Your task to perform on an android device: Go to network settings Image 0: 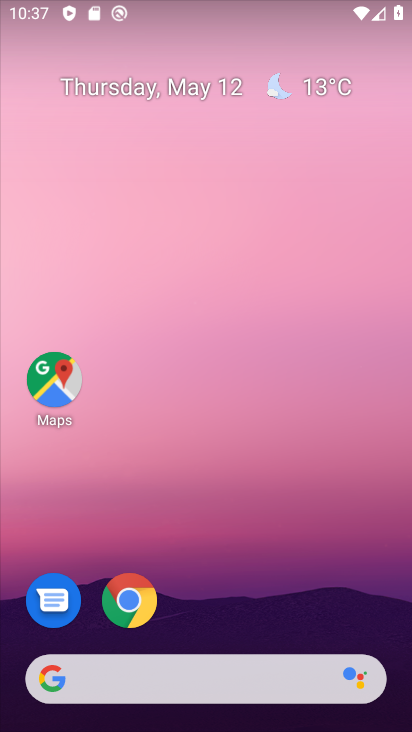
Step 0: drag from (398, 656) to (286, 216)
Your task to perform on an android device: Go to network settings Image 1: 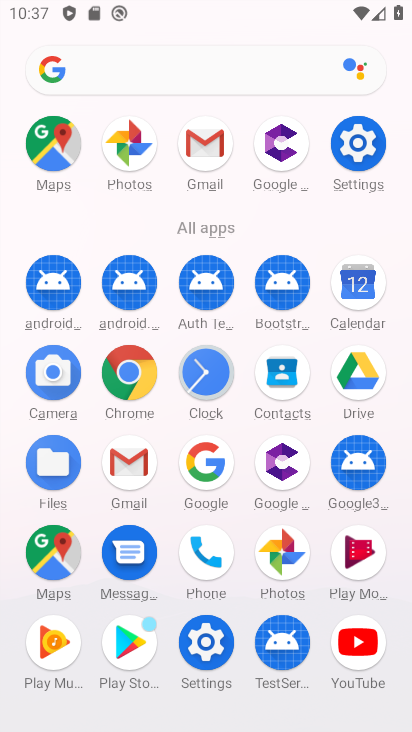
Step 1: click (210, 642)
Your task to perform on an android device: Go to network settings Image 2: 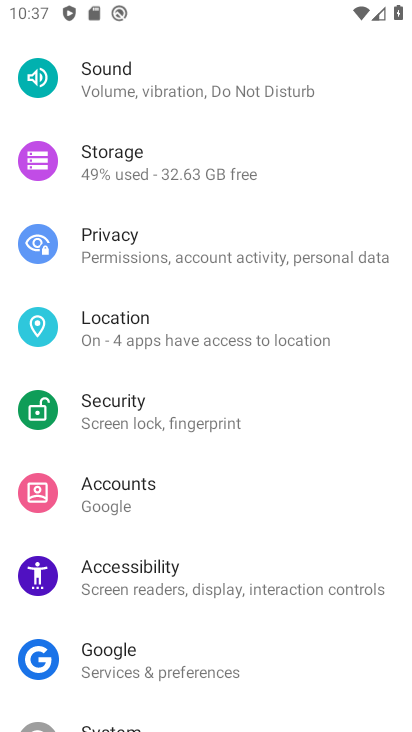
Step 2: drag from (341, 161) to (386, 501)
Your task to perform on an android device: Go to network settings Image 3: 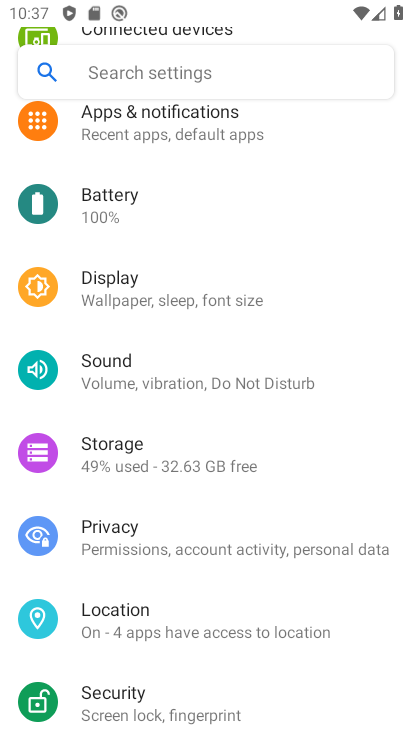
Step 3: drag from (344, 157) to (344, 474)
Your task to perform on an android device: Go to network settings Image 4: 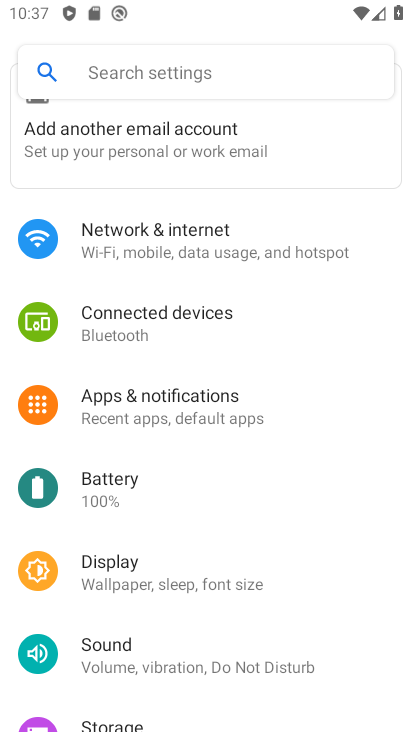
Step 4: click (111, 234)
Your task to perform on an android device: Go to network settings Image 5: 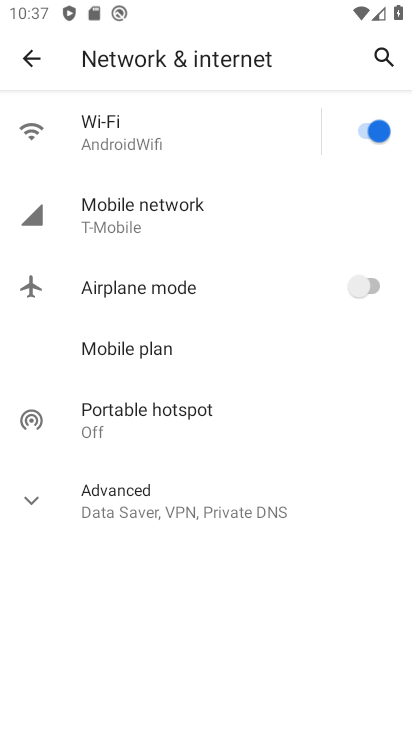
Step 5: click (127, 218)
Your task to perform on an android device: Go to network settings Image 6: 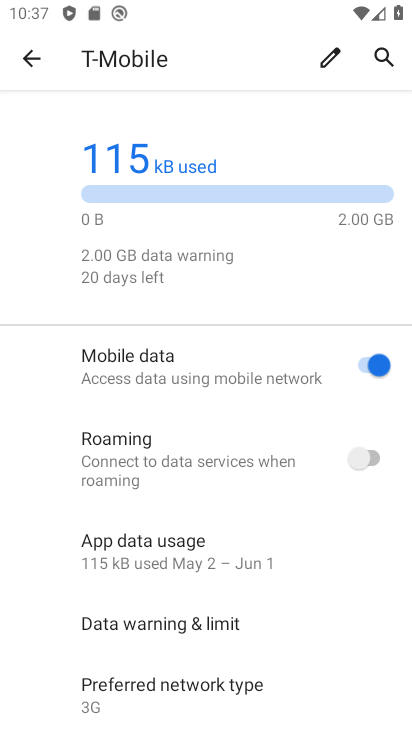
Step 6: task complete